Your task to perform on an android device: How do I get to the nearest T-Mobile Store? Image 0: 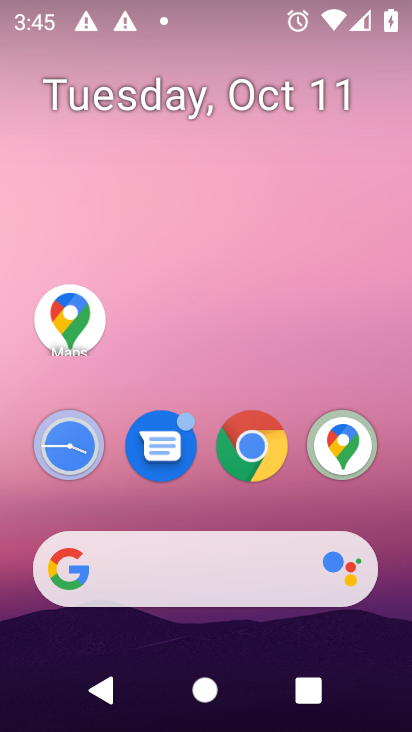
Step 0: click (256, 454)
Your task to perform on an android device: How do I get to the nearest T-Mobile Store? Image 1: 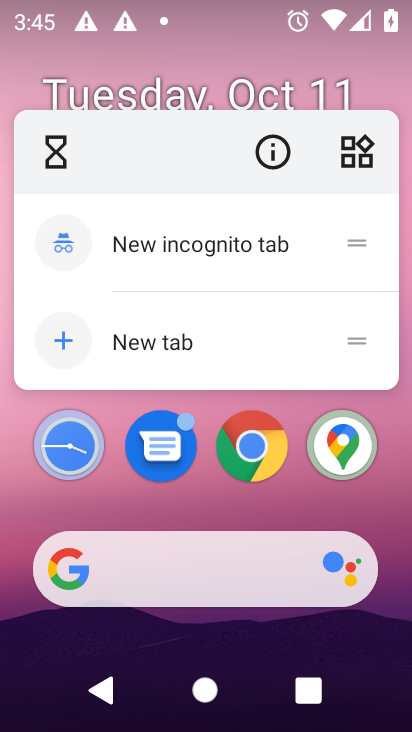
Step 1: click (256, 454)
Your task to perform on an android device: How do I get to the nearest T-Mobile Store? Image 2: 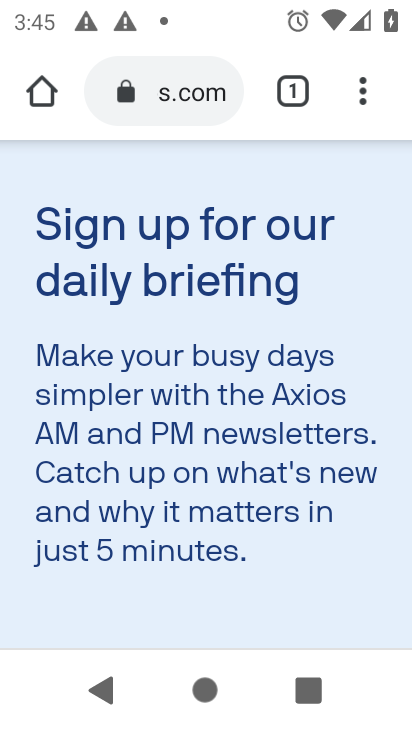
Step 2: click (182, 106)
Your task to perform on an android device: How do I get to the nearest T-Mobile Store? Image 3: 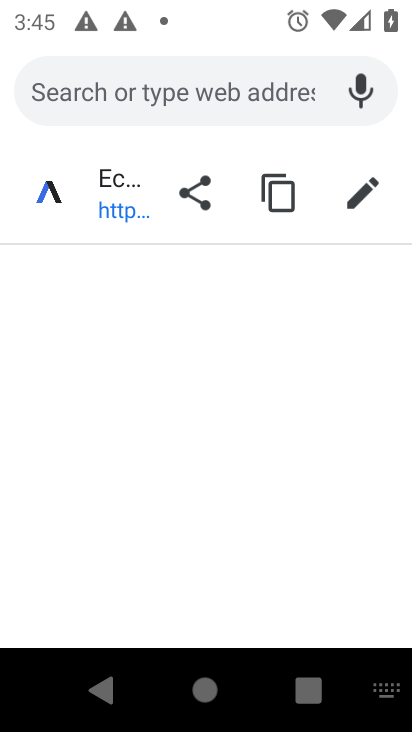
Step 3: type "nearest T-Mobile Store"
Your task to perform on an android device: How do I get to the nearest T-Mobile Store? Image 4: 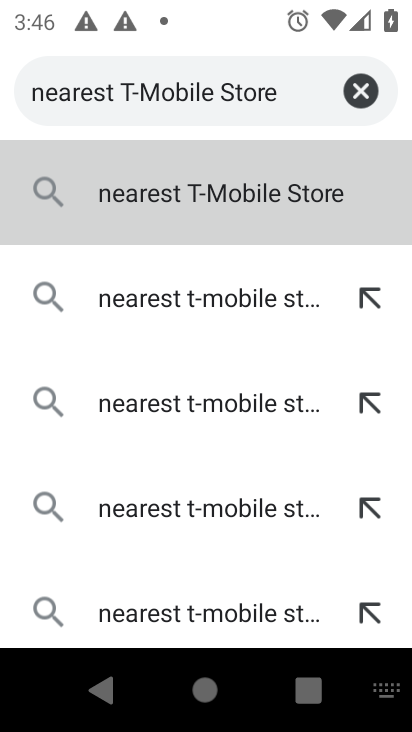
Step 4: click (175, 201)
Your task to perform on an android device: How do I get to the nearest T-Mobile Store? Image 5: 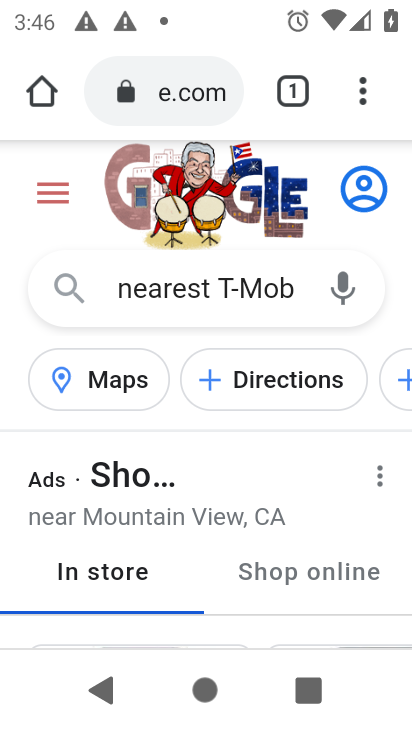
Step 5: task complete